Your task to perform on an android device: turn off wifi Image 0: 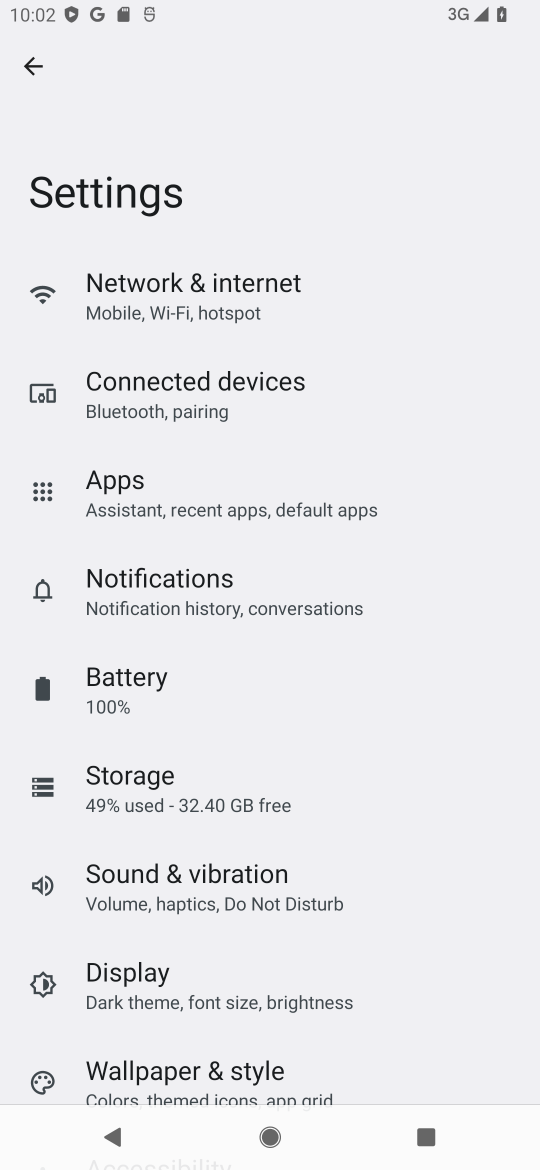
Step 0: click (196, 281)
Your task to perform on an android device: turn off wifi Image 1: 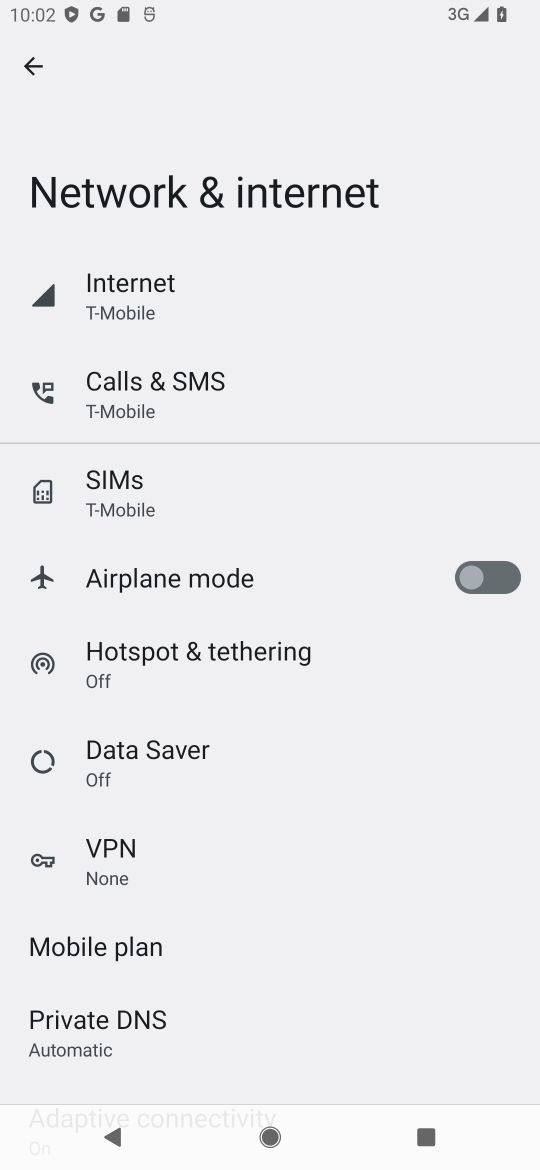
Step 1: click (109, 276)
Your task to perform on an android device: turn off wifi Image 2: 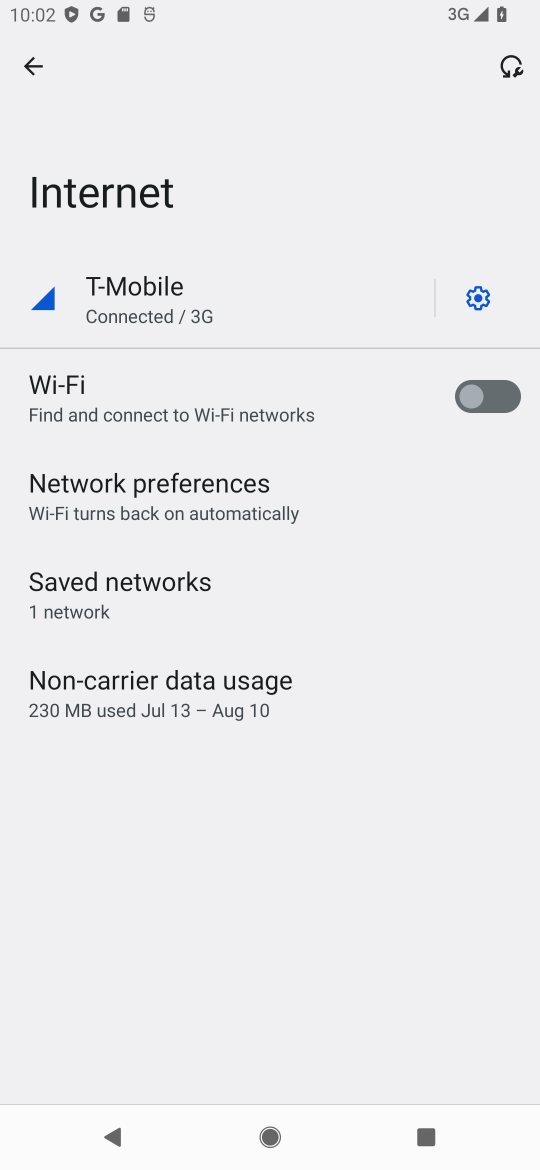
Step 2: task complete